Your task to perform on an android device: Go to network settings Image 0: 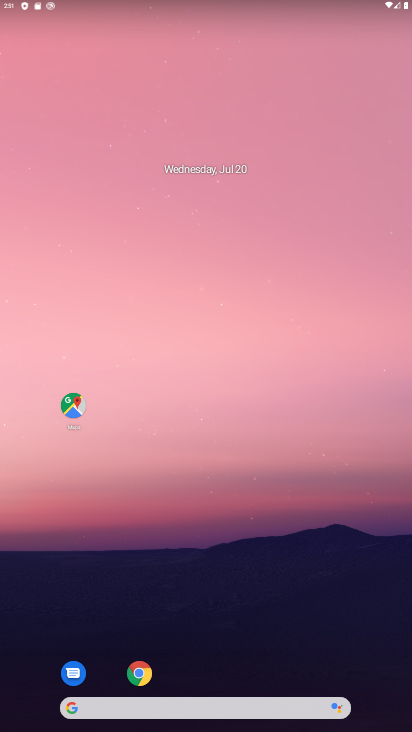
Step 0: drag from (230, 634) to (245, 41)
Your task to perform on an android device: Go to network settings Image 1: 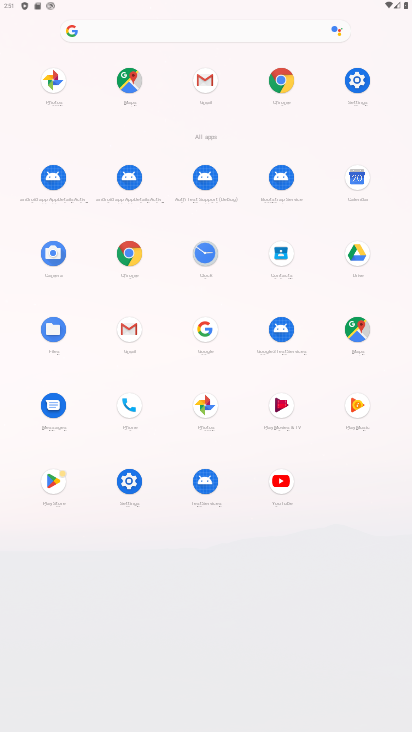
Step 1: click (123, 481)
Your task to perform on an android device: Go to network settings Image 2: 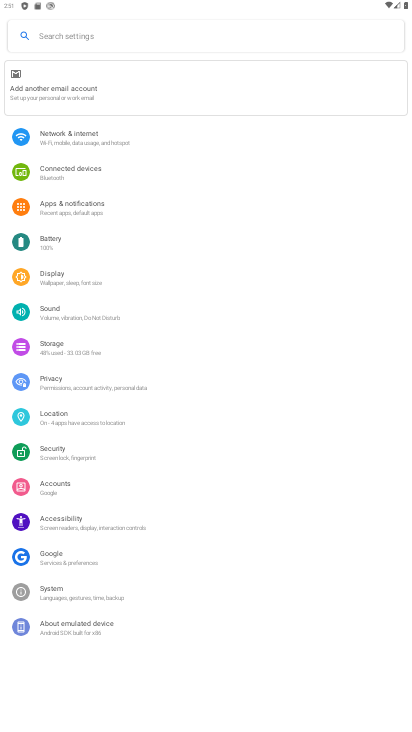
Step 2: click (83, 137)
Your task to perform on an android device: Go to network settings Image 3: 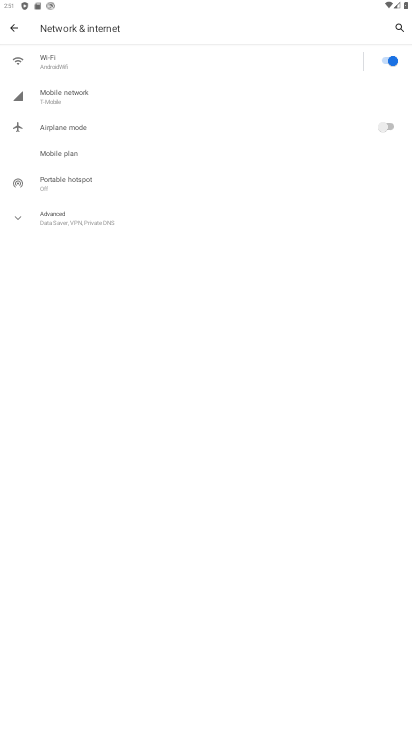
Step 3: task complete